Your task to perform on an android device: turn off notifications in google photos Image 0: 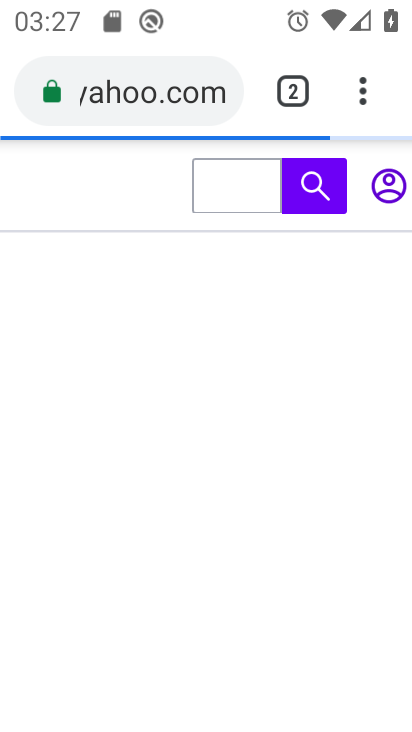
Step 0: press home button
Your task to perform on an android device: turn off notifications in google photos Image 1: 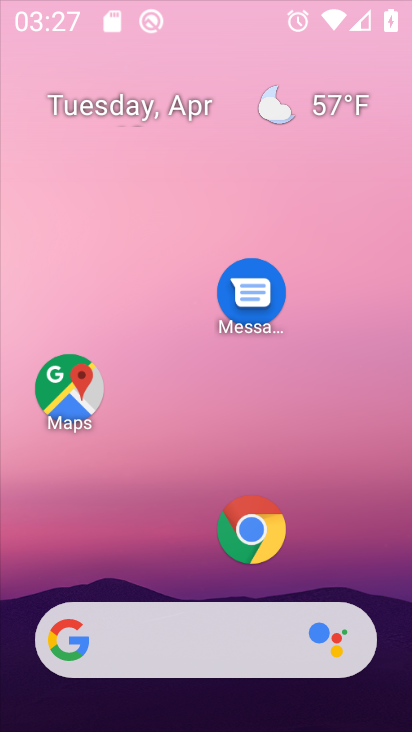
Step 1: drag from (152, 510) to (169, 191)
Your task to perform on an android device: turn off notifications in google photos Image 2: 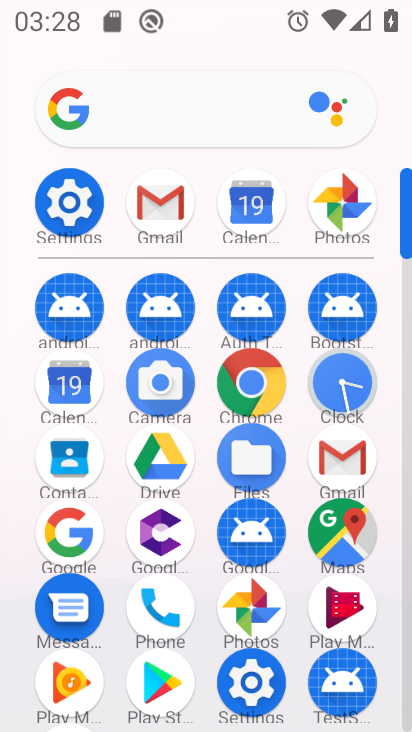
Step 2: click (254, 609)
Your task to perform on an android device: turn off notifications in google photos Image 3: 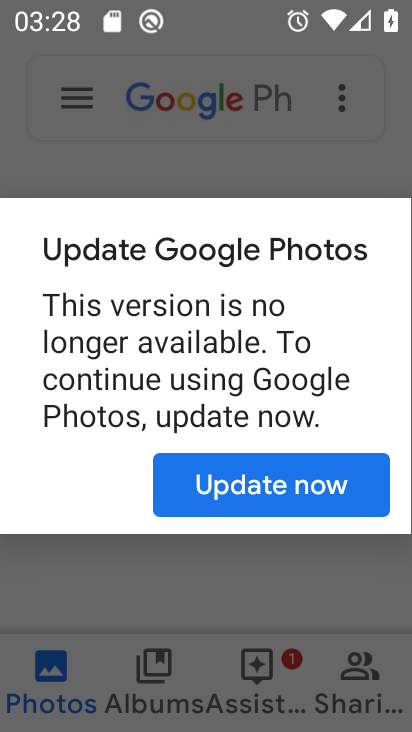
Step 3: click (282, 488)
Your task to perform on an android device: turn off notifications in google photos Image 4: 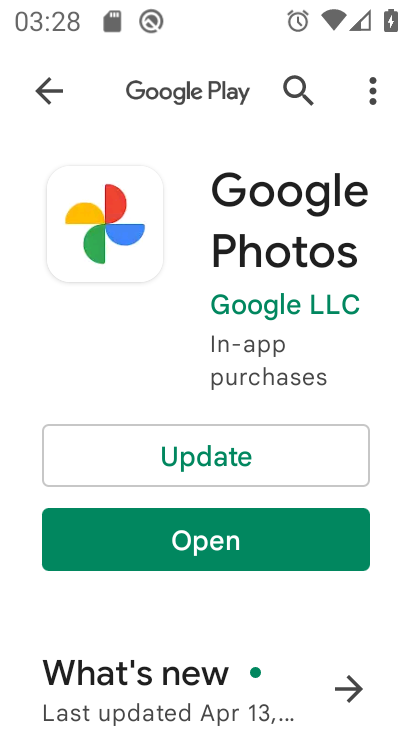
Step 4: click (227, 540)
Your task to perform on an android device: turn off notifications in google photos Image 5: 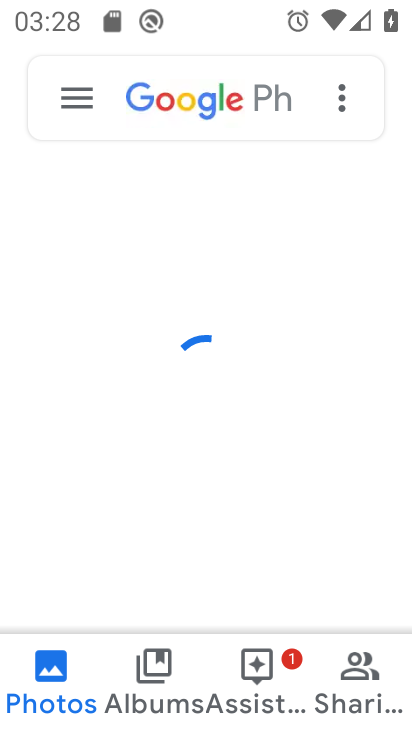
Step 5: click (82, 105)
Your task to perform on an android device: turn off notifications in google photos Image 6: 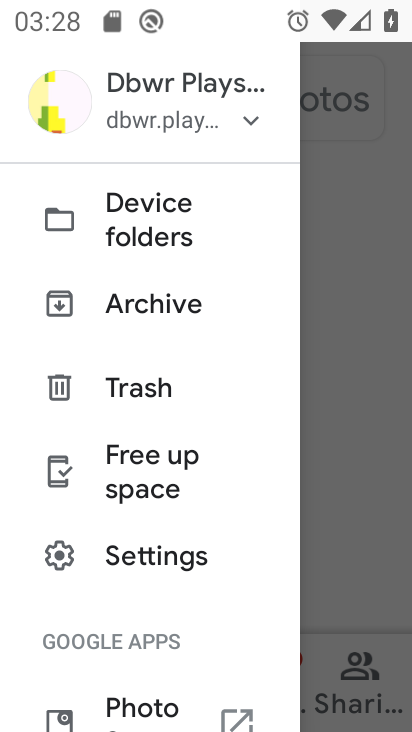
Step 6: click (137, 559)
Your task to perform on an android device: turn off notifications in google photos Image 7: 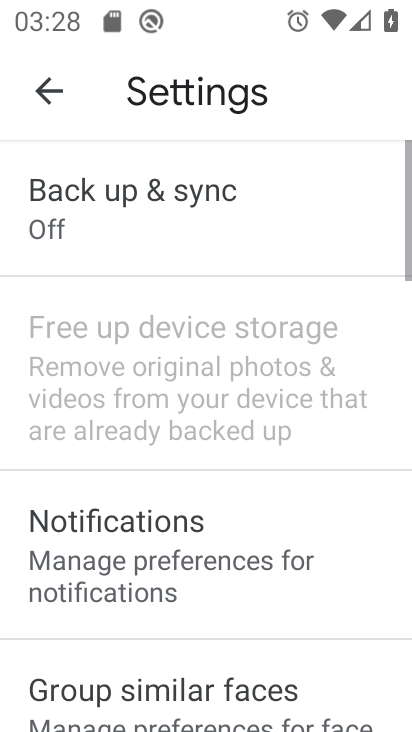
Step 7: click (180, 548)
Your task to perform on an android device: turn off notifications in google photos Image 8: 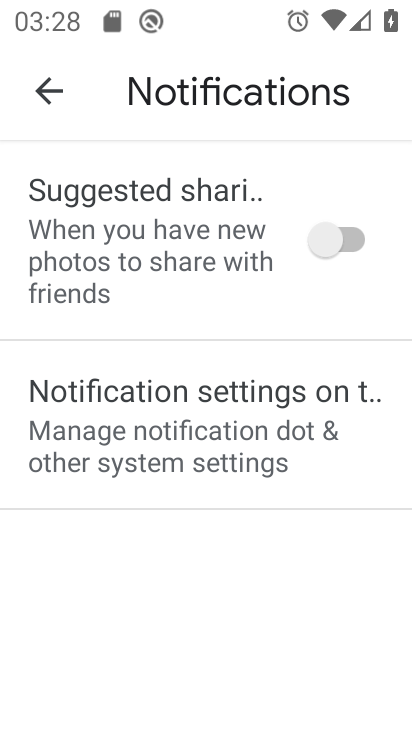
Step 8: click (248, 415)
Your task to perform on an android device: turn off notifications in google photos Image 9: 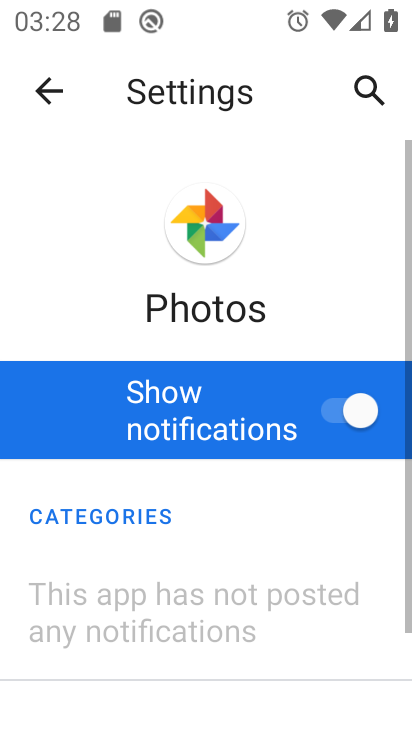
Step 9: drag from (234, 506) to (240, 252)
Your task to perform on an android device: turn off notifications in google photos Image 10: 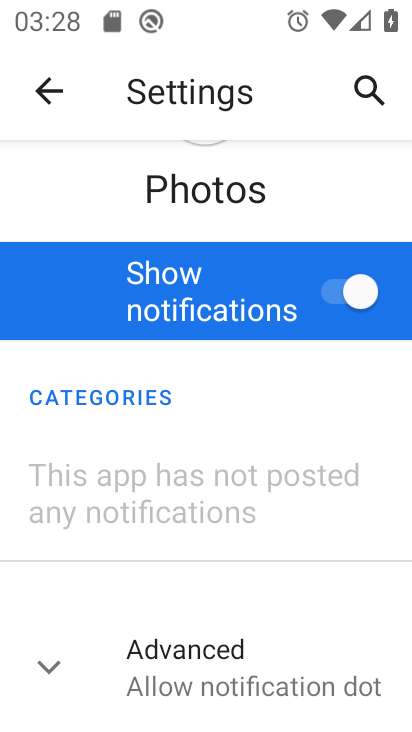
Step 10: click (343, 290)
Your task to perform on an android device: turn off notifications in google photos Image 11: 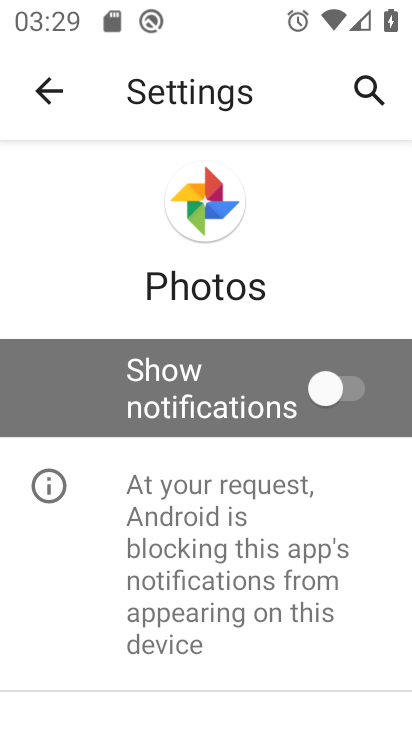
Step 11: task complete